Your task to perform on an android device: turn on translation in the chrome app Image 0: 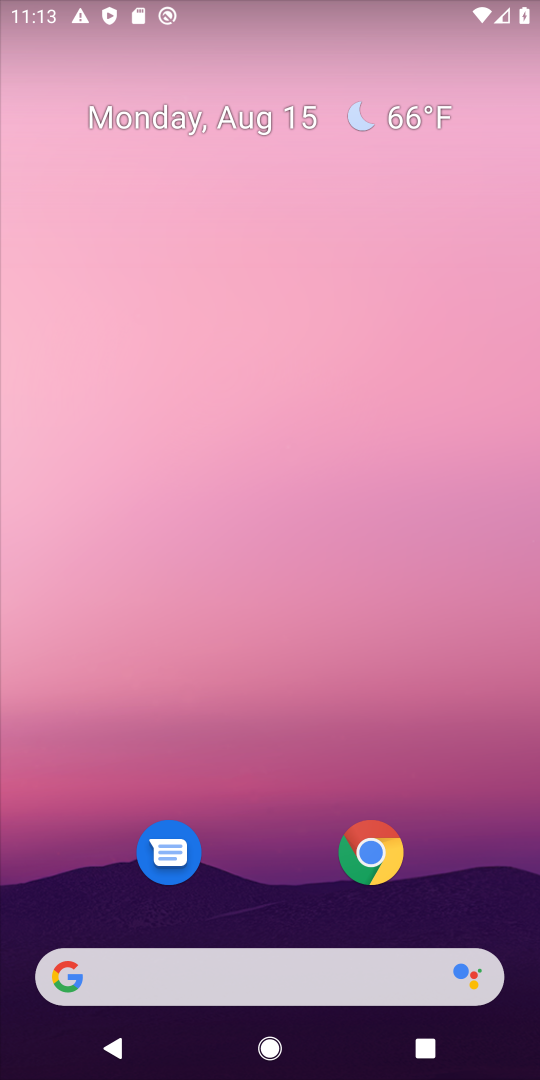
Step 0: click (371, 863)
Your task to perform on an android device: turn on translation in the chrome app Image 1: 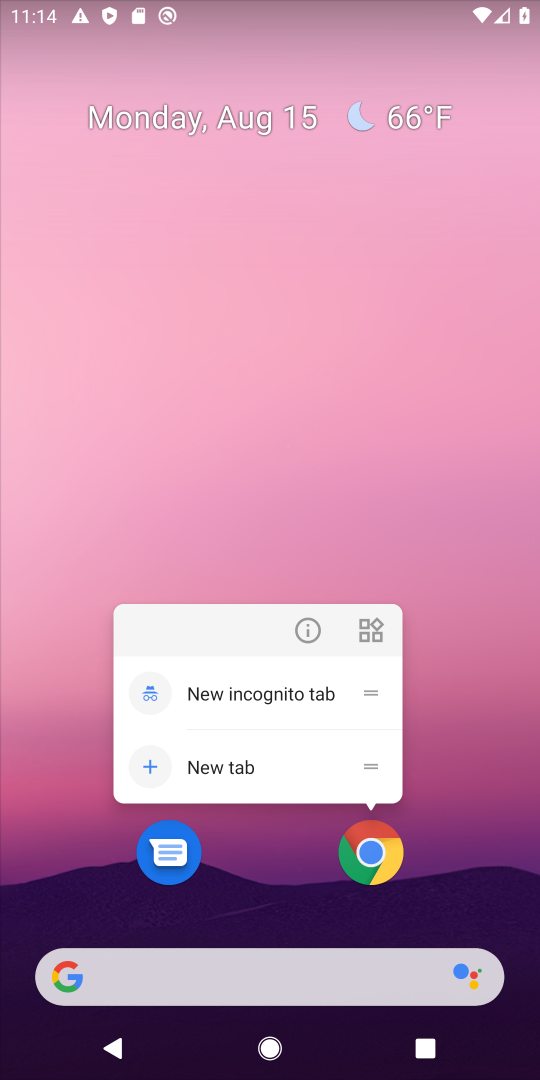
Step 1: click (370, 845)
Your task to perform on an android device: turn on translation in the chrome app Image 2: 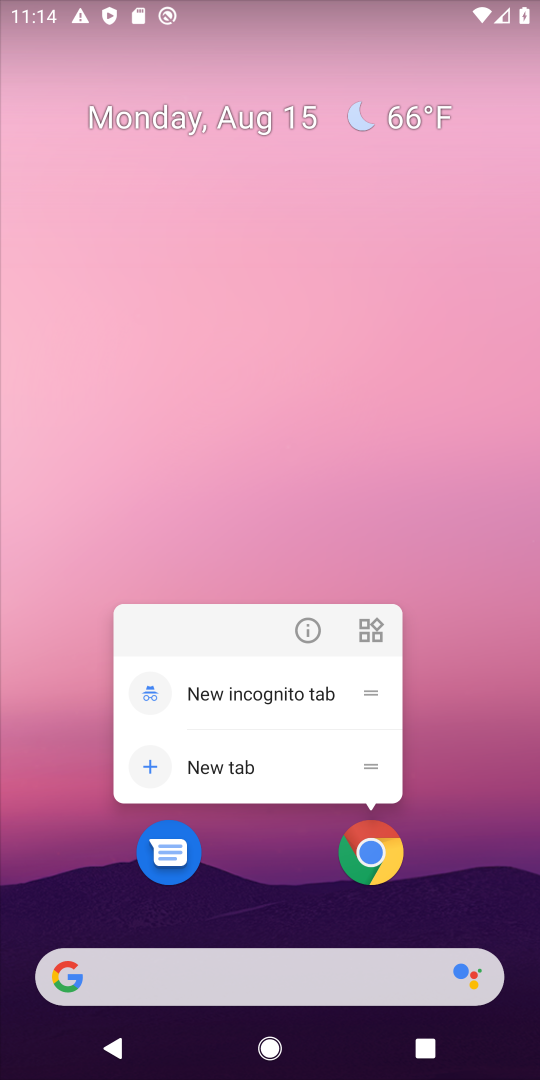
Step 2: click (370, 845)
Your task to perform on an android device: turn on translation in the chrome app Image 3: 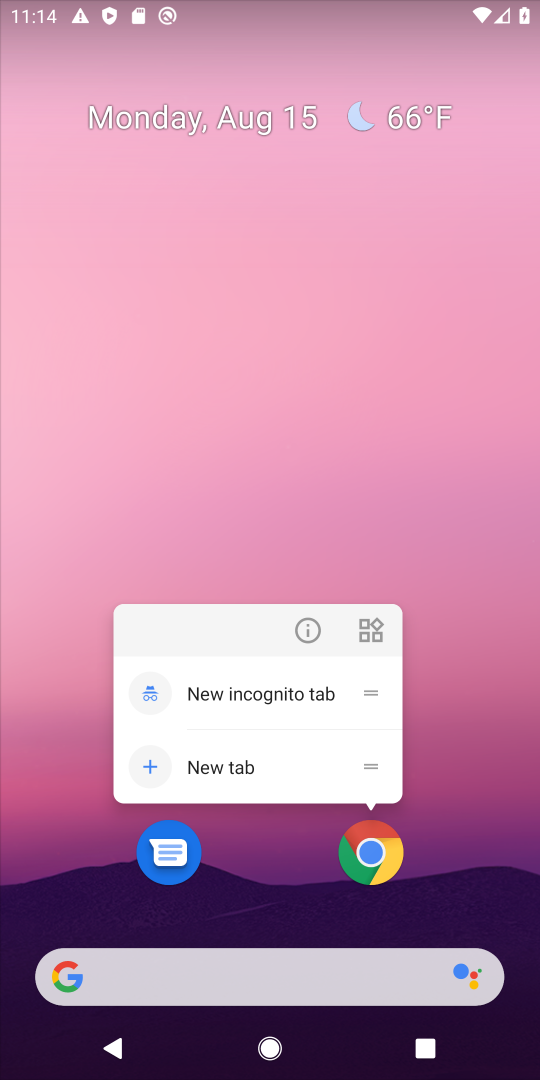
Step 3: click (370, 845)
Your task to perform on an android device: turn on translation in the chrome app Image 4: 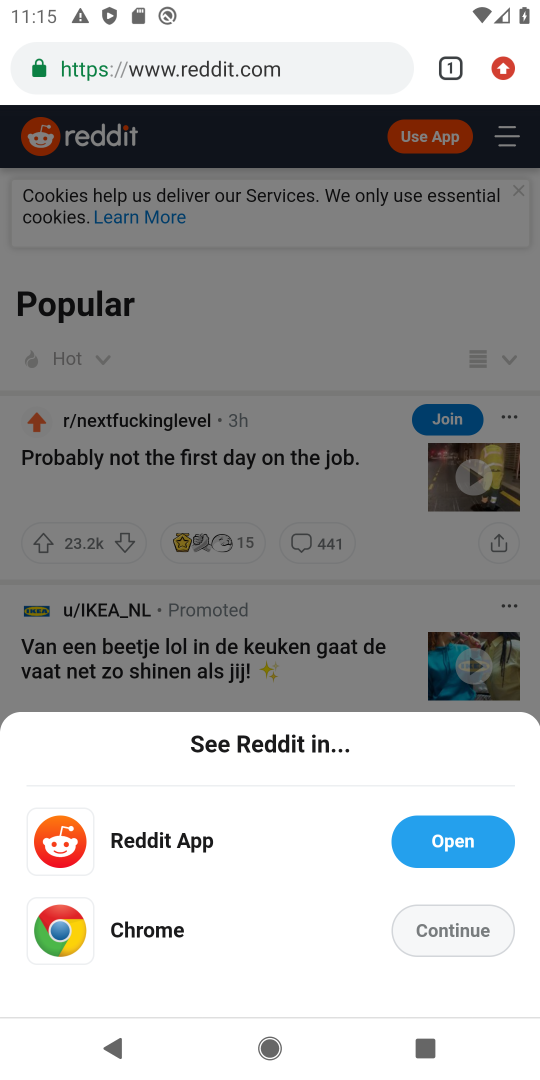
Step 4: drag from (501, 65) to (293, 912)
Your task to perform on an android device: turn on translation in the chrome app Image 5: 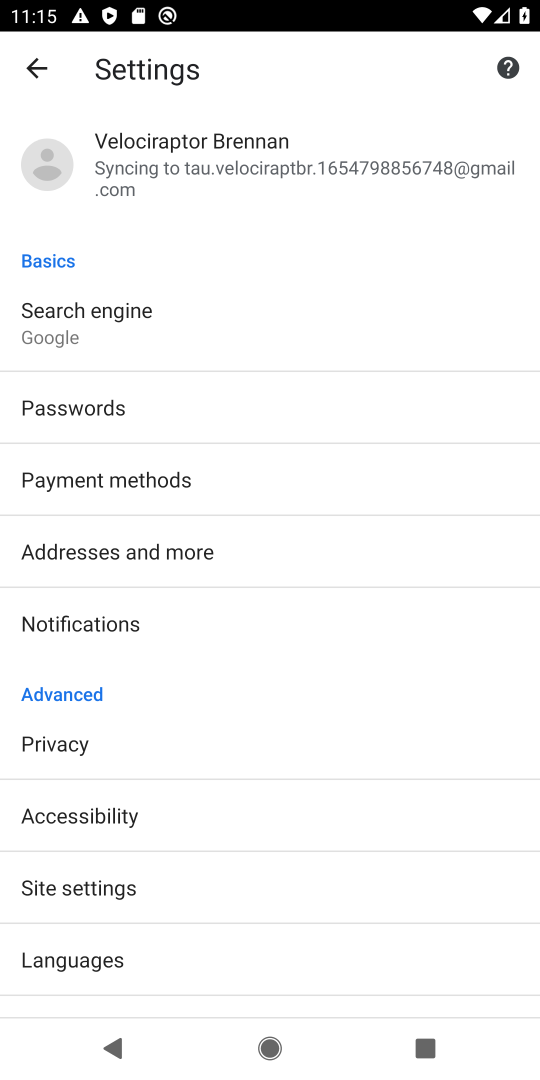
Step 5: click (93, 950)
Your task to perform on an android device: turn on translation in the chrome app Image 6: 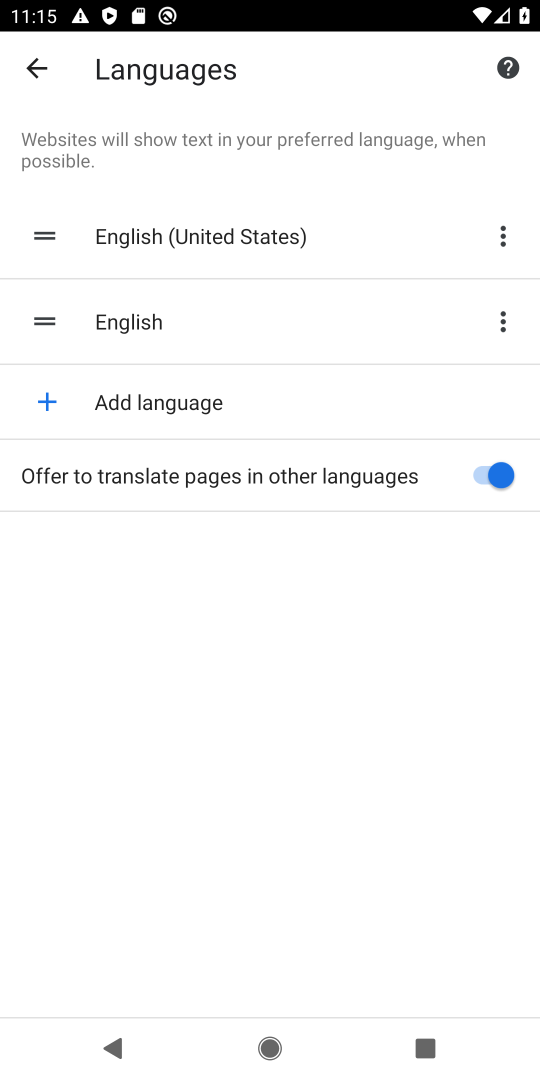
Step 6: task complete